Your task to perform on an android device: Open display settings Image 0: 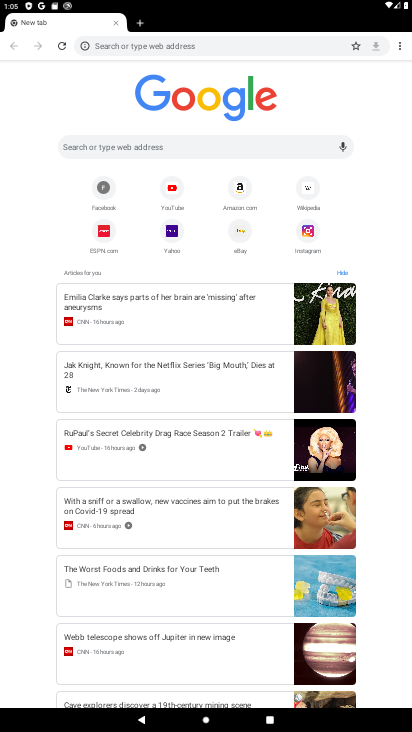
Step 0: press home button
Your task to perform on an android device: Open display settings Image 1: 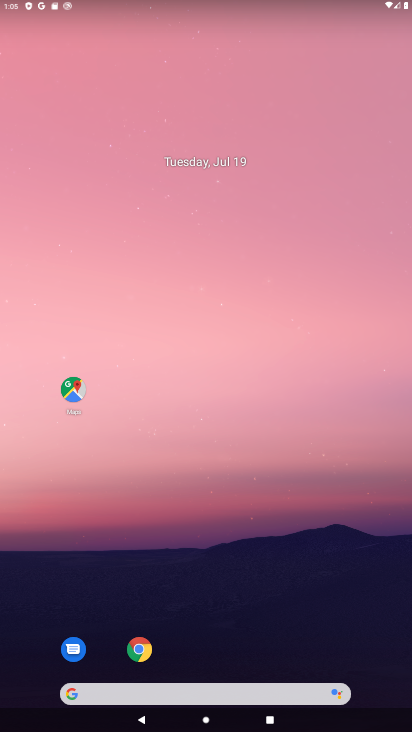
Step 1: drag from (221, 679) to (287, 2)
Your task to perform on an android device: Open display settings Image 2: 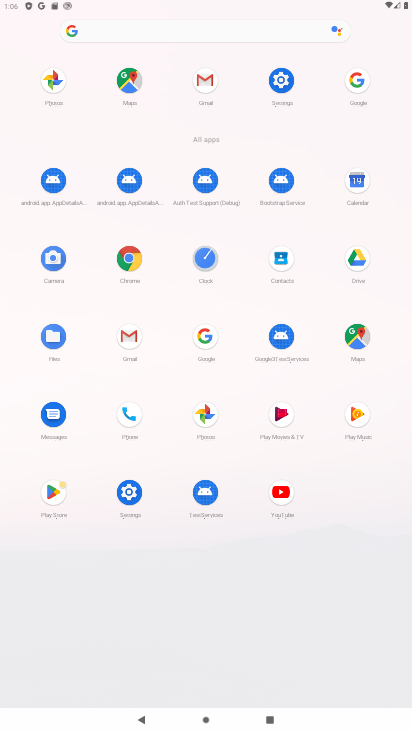
Step 2: click (124, 493)
Your task to perform on an android device: Open display settings Image 3: 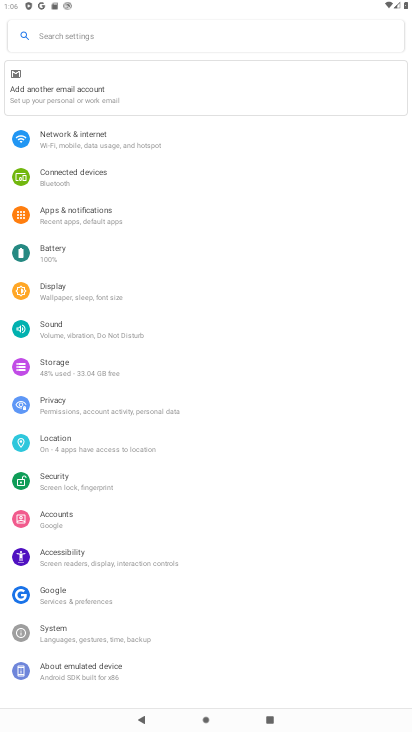
Step 3: click (53, 284)
Your task to perform on an android device: Open display settings Image 4: 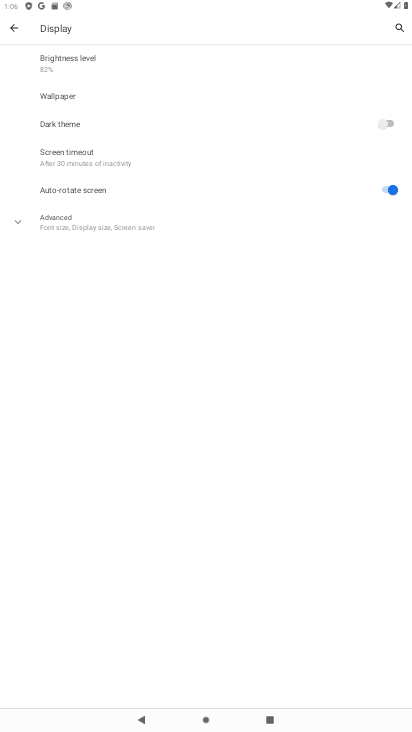
Step 4: task complete